Your task to perform on an android device: Search for a new desk on IKEA. Image 0: 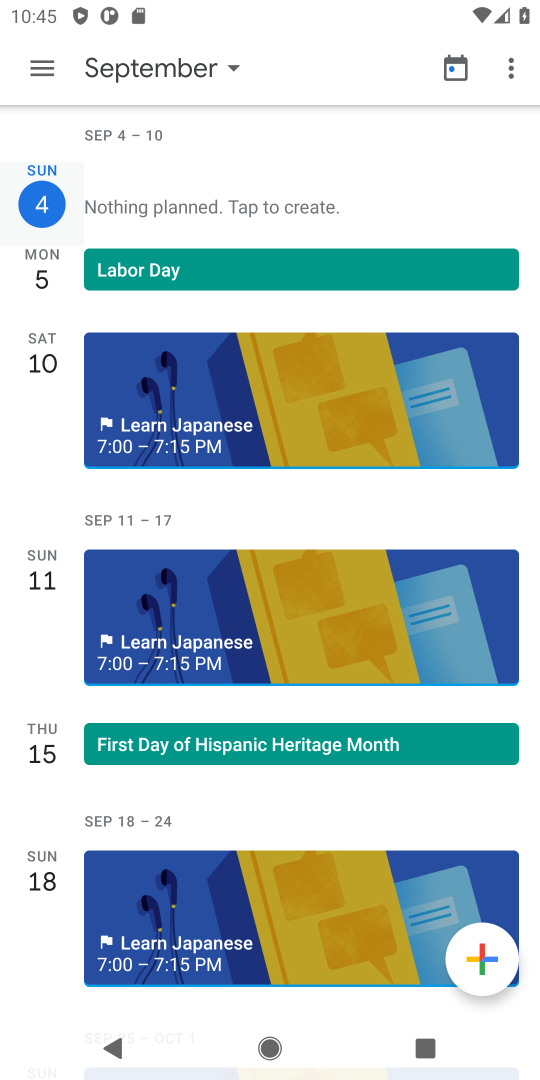
Step 0: press home button
Your task to perform on an android device: Search for a new desk on IKEA. Image 1: 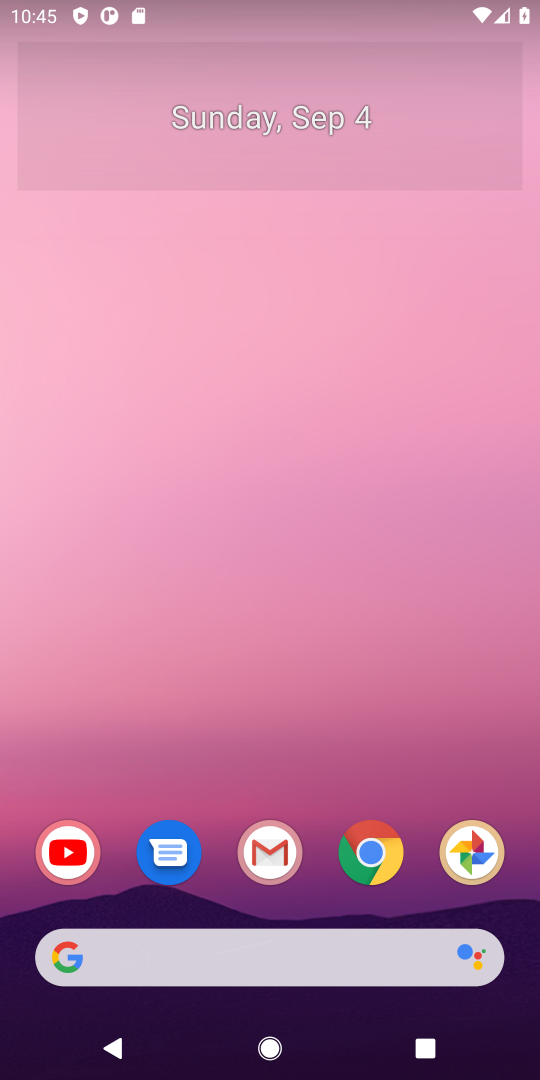
Step 1: drag from (412, 894) to (282, 4)
Your task to perform on an android device: Search for a new desk on IKEA. Image 2: 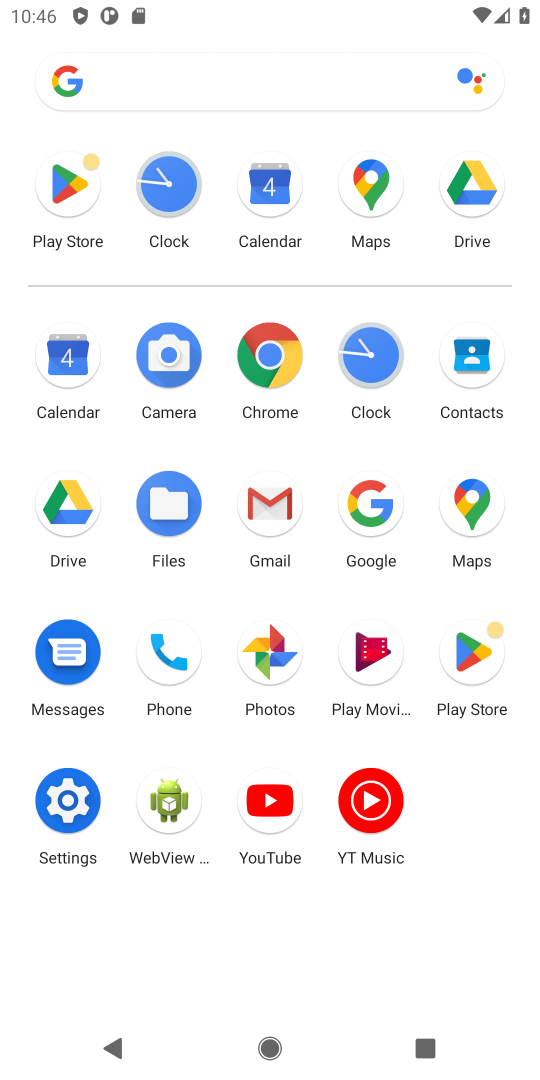
Step 2: click (395, 514)
Your task to perform on an android device: Search for a new desk on IKEA. Image 3: 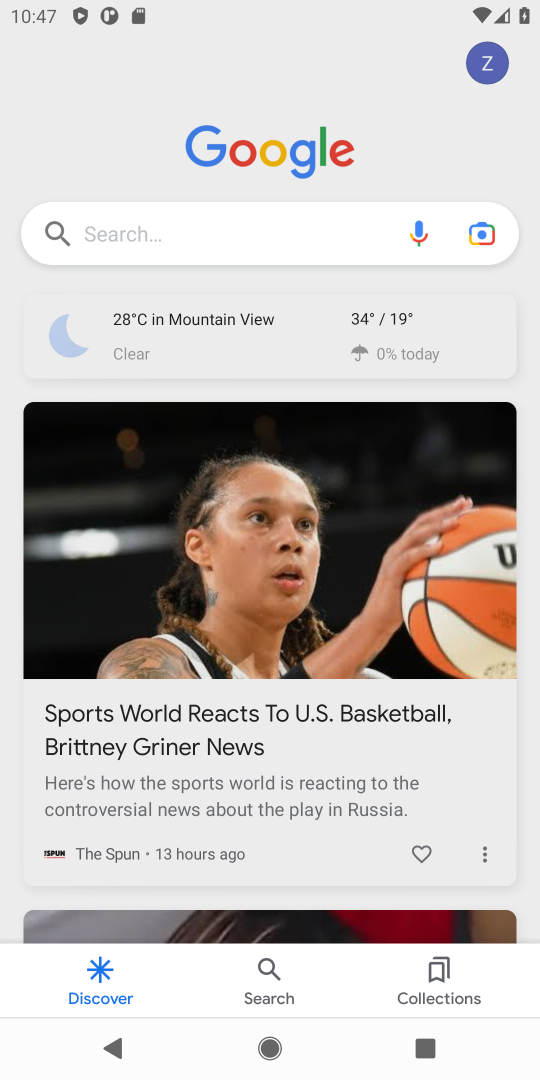
Step 3: click (160, 211)
Your task to perform on an android device: Search for a new desk on IKEA. Image 4: 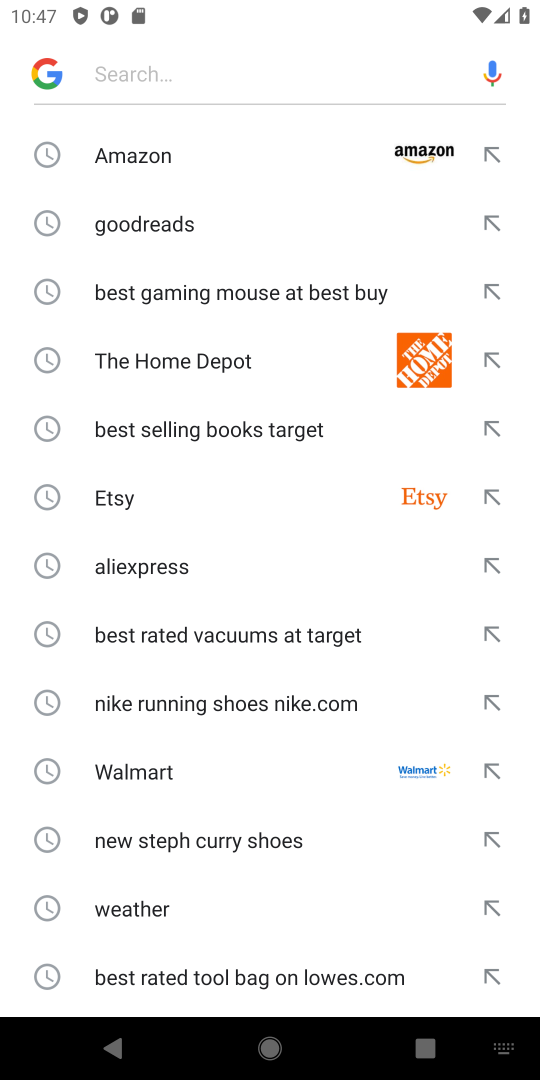
Step 4: type "new desk on IKEA"
Your task to perform on an android device: Search for a new desk on IKEA. Image 5: 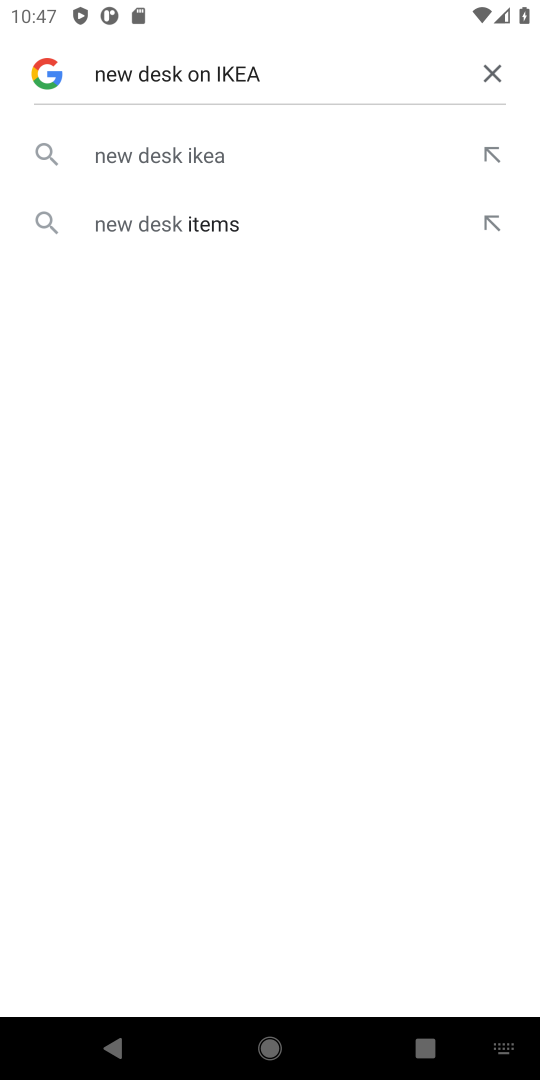
Step 5: click (194, 159)
Your task to perform on an android device: Search for a new desk on IKEA. Image 6: 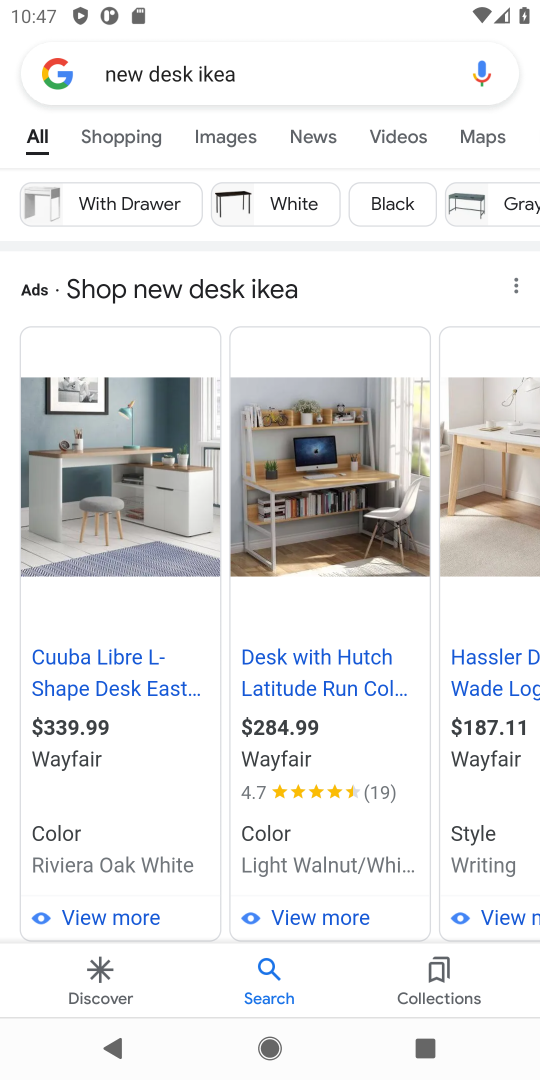
Step 6: task complete